Your task to perform on an android device: delete browsing data in the chrome app Image 0: 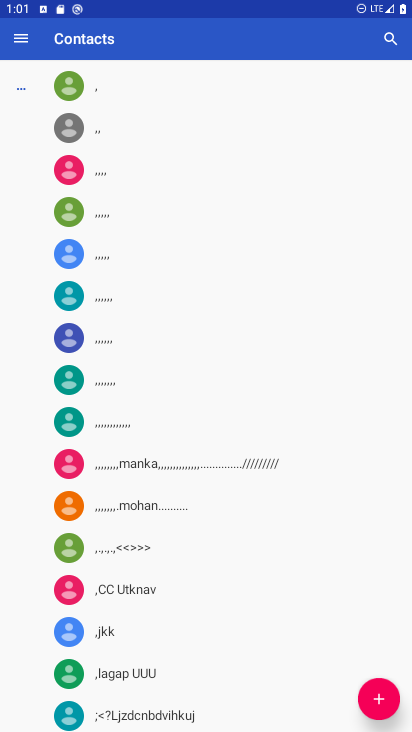
Step 0: press home button
Your task to perform on an android device: delete browsing data in the chrome app Image 1: 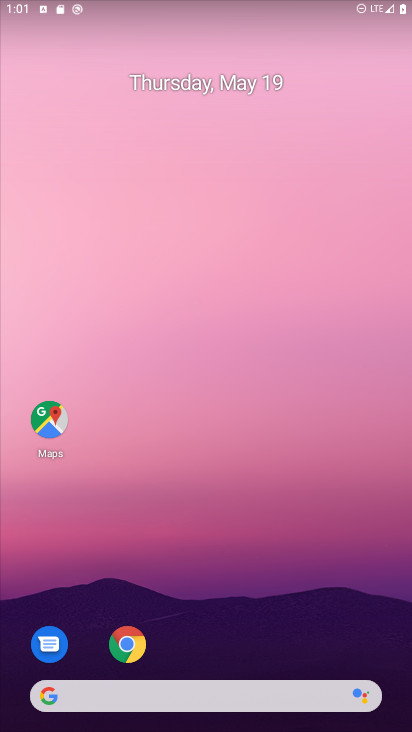
Step 1: drag from (357, 616) to (229, 74)
Your task to perform on an android device: delete browsing data in the chrome app Image 2: 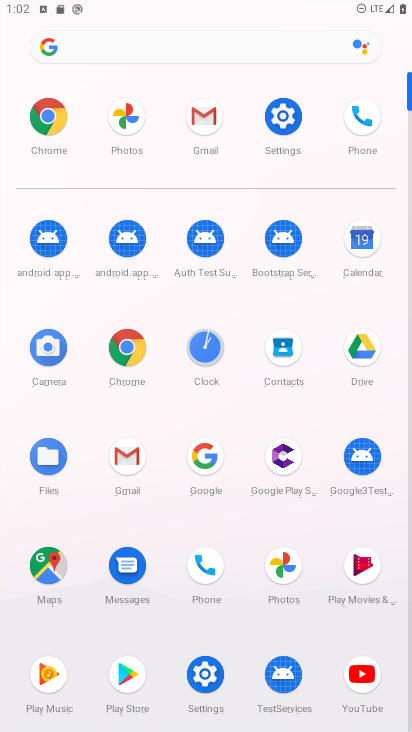
Step 2: click (128, 374)
Your task to perform on an android device: delete browsing data in the chrome app Image 3: 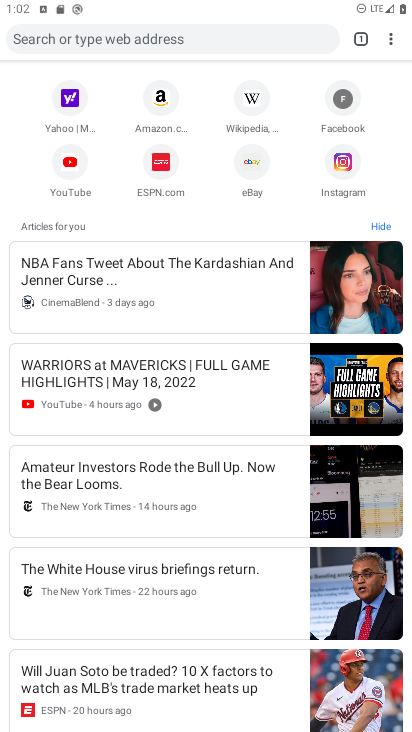
Step 3: click (388, 33)
Your task to perform on an android device: delete browsing data in the chrome app Image 4: 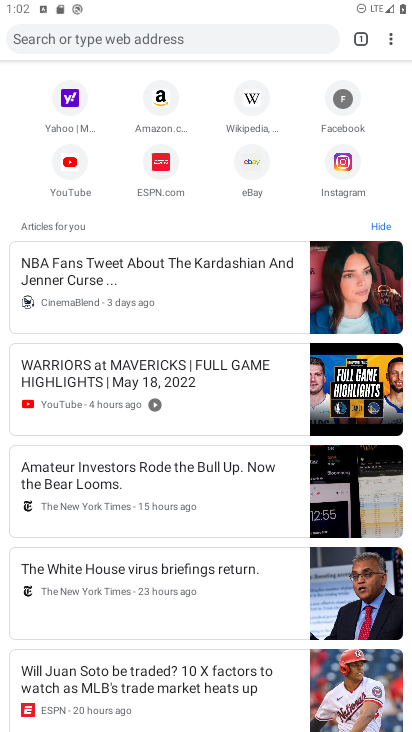
Step 4: click (393, 36)
Your task to perform on an android device: delete browsing data in the chrome app Image 5: 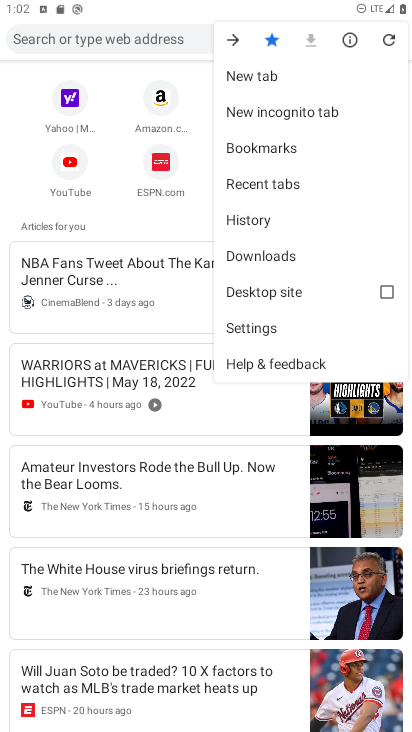
Step 5: click (274, 231)
Your task to perform on an android device: delete browsing data in the chrome app Image 6: 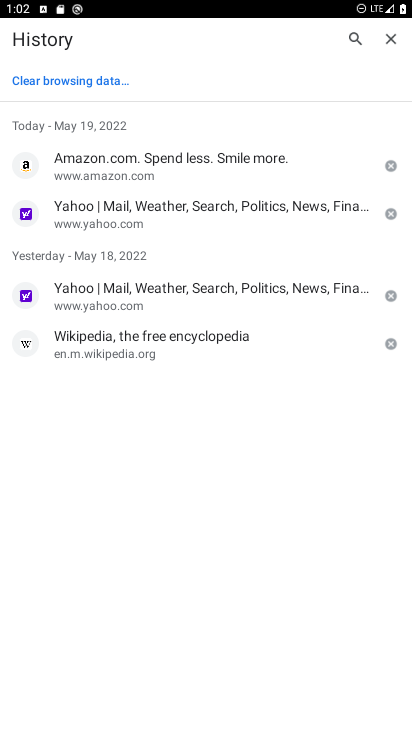
Step 6: click (42, 79)
Your task to perform on an android device: delete browsing data in the chrome app Image 7: 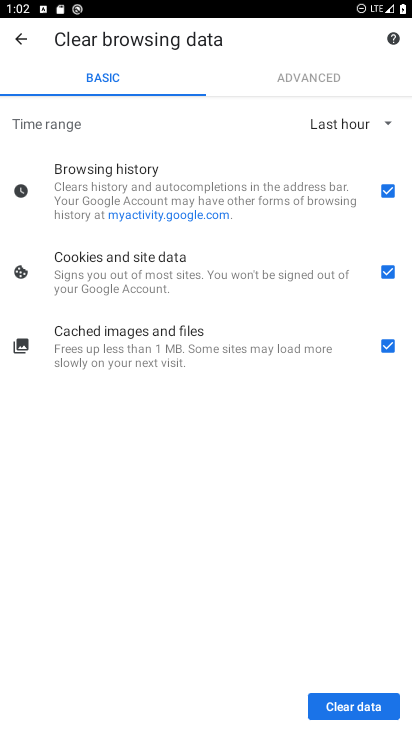
Step 7: click (334, 710)
Your task to perform on an android device: delete browsing data in the chrome app Image 8: 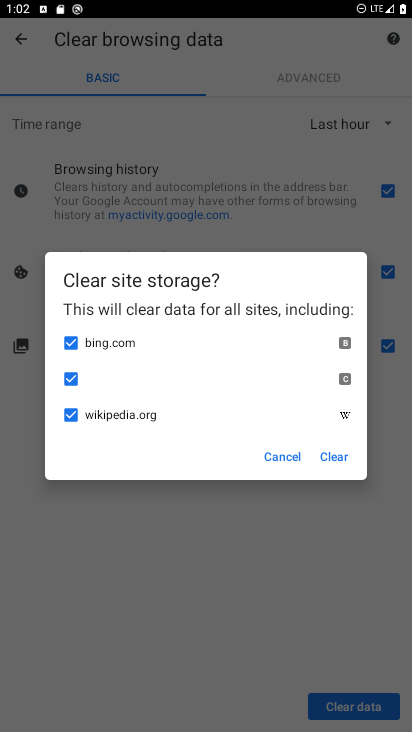
Step 8: click (333, 463)
Your task to perform on an android device: delete browsing data in the chrome app Image 9: 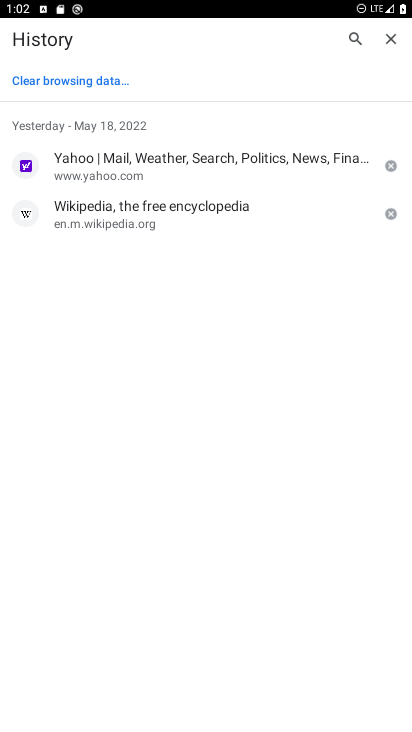
Step 9: click (66, 82)
Your task to perform on an android device: delete browsing data in the chrome app Image 10: 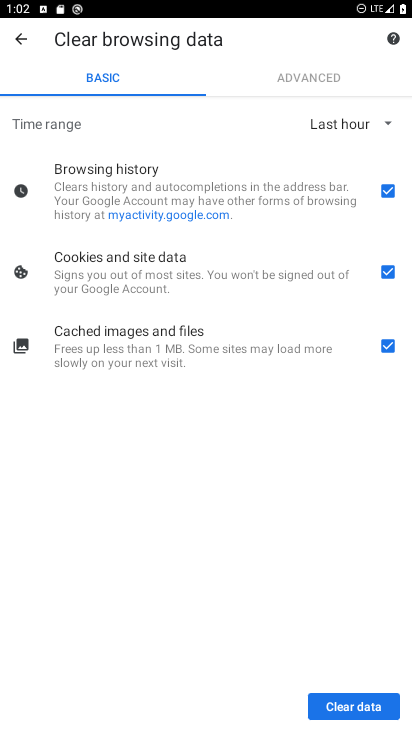
Step 10: click (354, 687)
Your task to perform on an android device: delete browsing data in the chrome app Image 11: 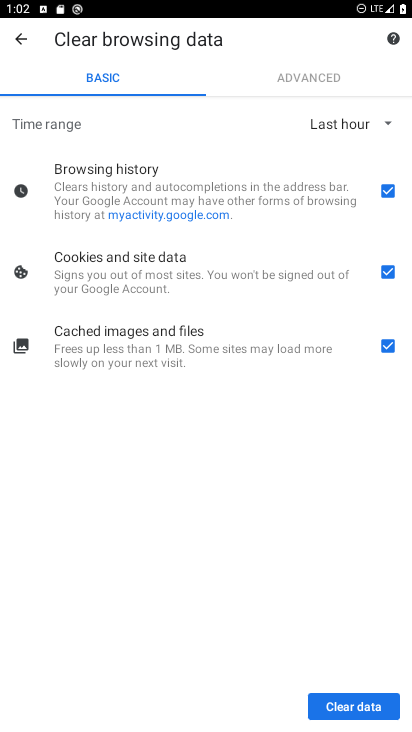
Step 11: click (326, 716)
Your task to perform on an android device: delete browsing data in the chrome app Image 12: 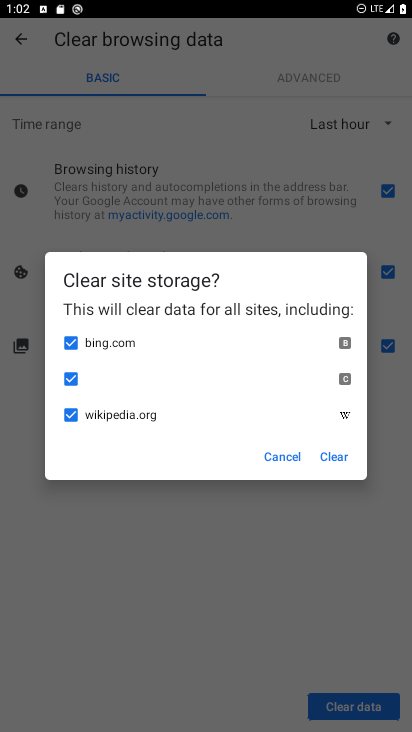
Step 12: click (321, 457)
Your task to perform on an android device: delete browsing data in the chrome app Image 13: 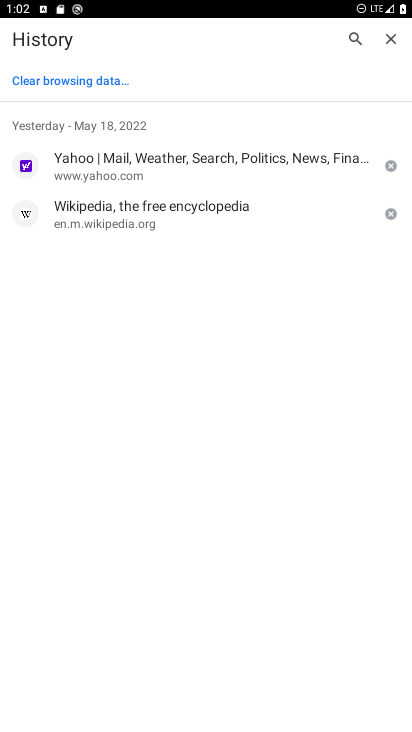
Step 13: task complete